Your task to perform on an android device: Open display settings Image 0: 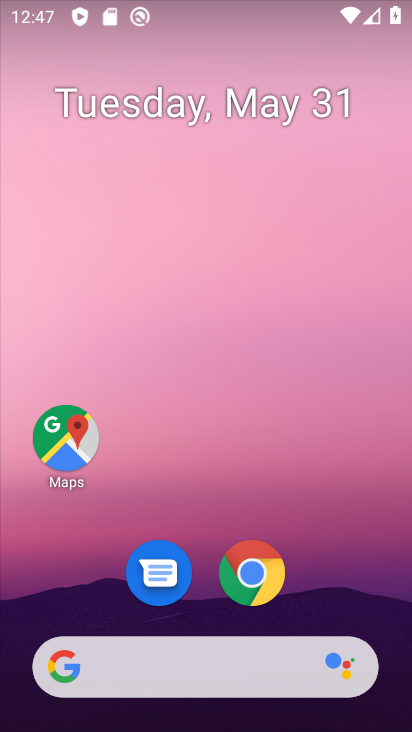
Step 0: drag from (336, 593) to (361, 313)
Your task to perform on an android device: Open display settings Image 1: 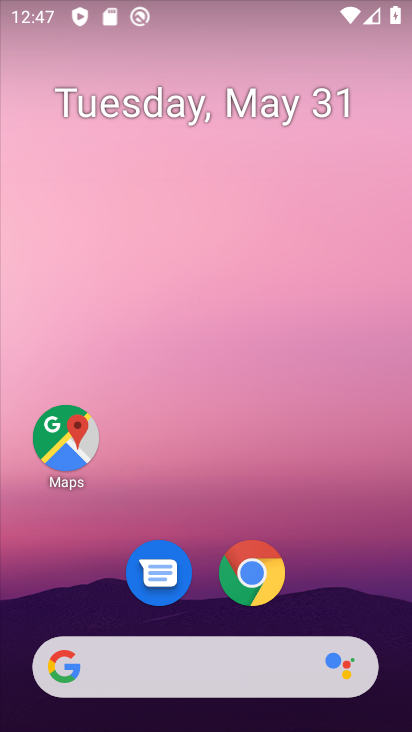
Step 1: drag from (377, 471) to (384, 109)
Your task to perform on an android device: Open display settings Image 2: 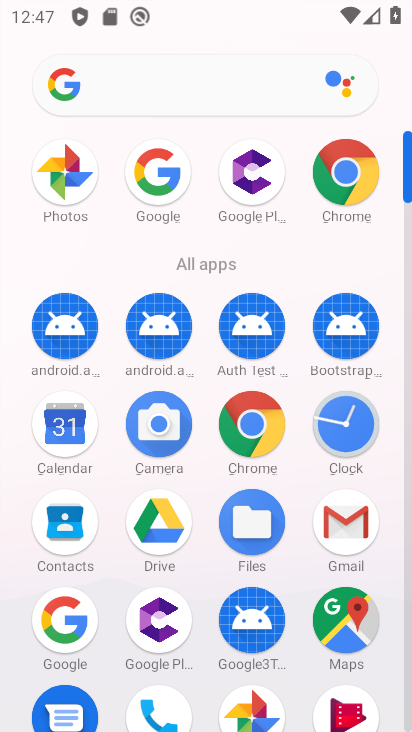
Step 2: drag from (198, 548) to (193, 304)
Your task to perform on an android device: Open display settings Image 3: 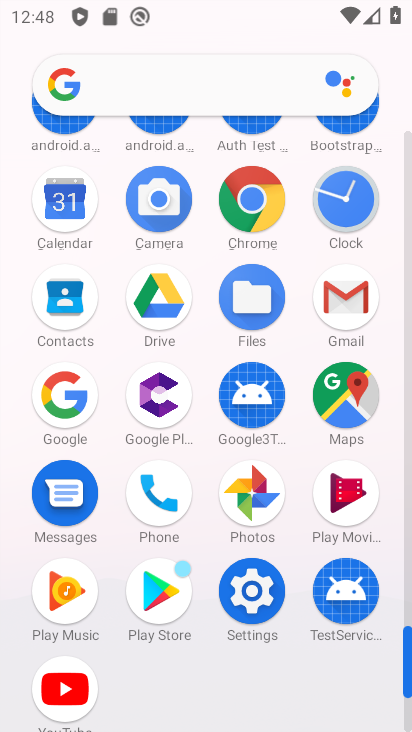
Step 3: click (244, 594)
Your task to perform on an android device: Open display settings Image 4: 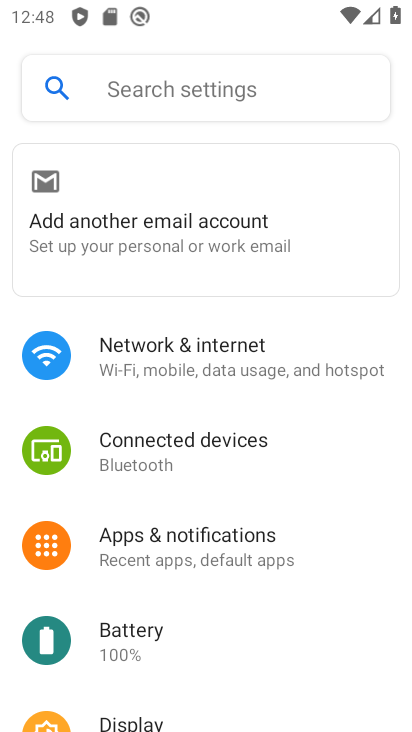
Step 4: drag from (297, 604) to (318, 470)
Your task to perform on an android device: Open display settings Image 5: 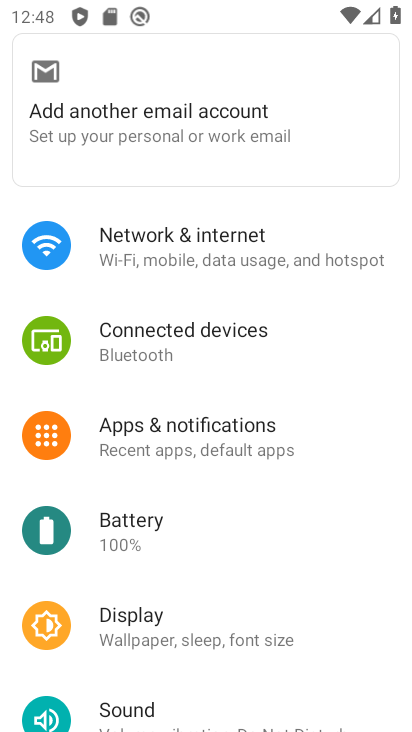
Step 5: drag from (335, 587) to (333, 460)
Your task to perform on an android device: Open display settings Image 6: 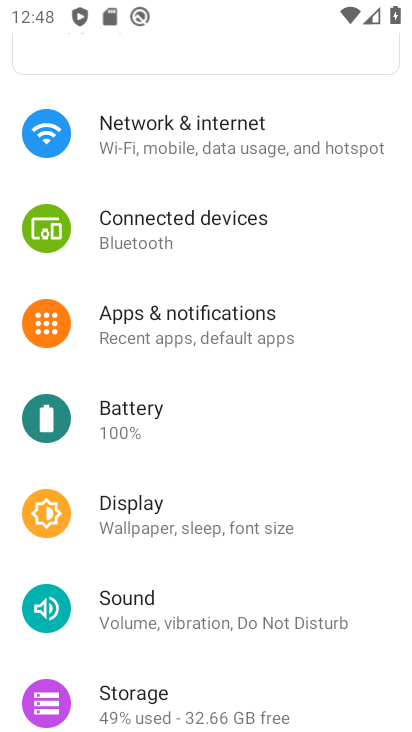
Step 6: drag from (319, 651) to (328, 448)
Your task to perform on an android device: Open display settings Image 7: 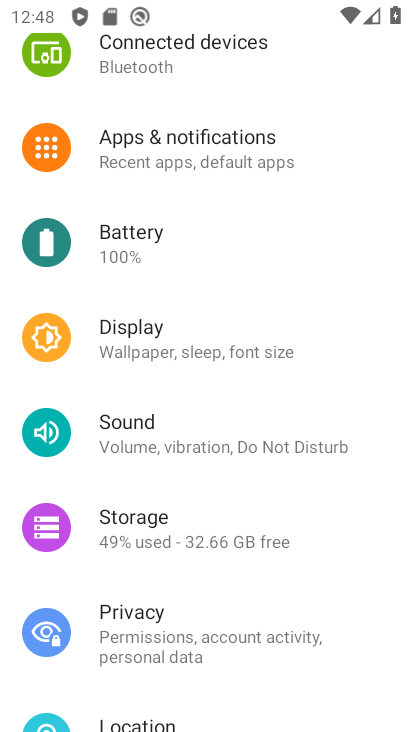
Step 7: drag from (349, 589) to (348, 453)
Your task to perform on an android device: Open display settings Image 8: 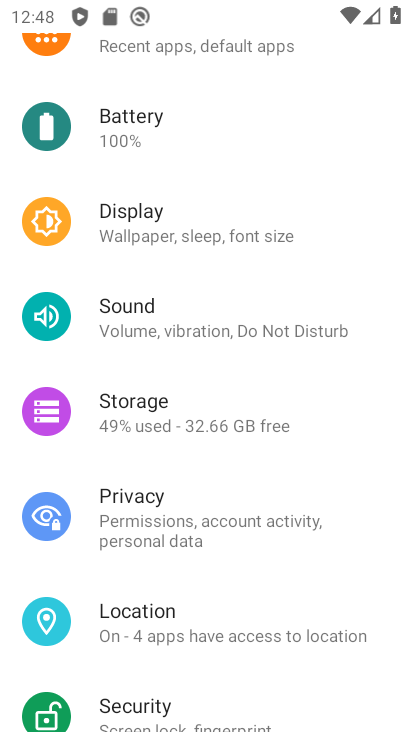
Step 8: drag from (356, 584) to (357, 417)
Your task to perform on an android device: Open display settings Image 9: 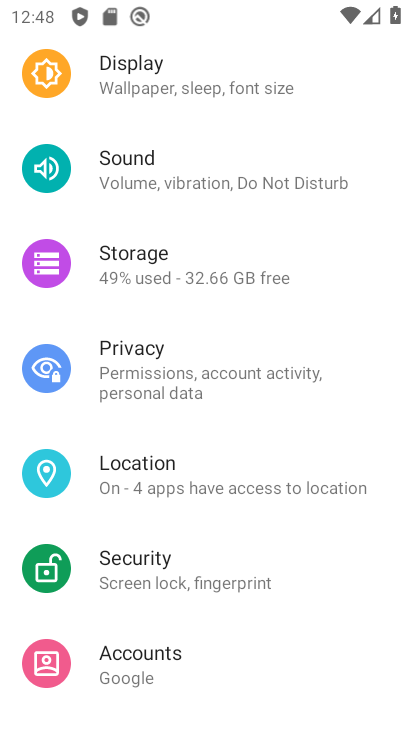
Step 9: drag from (364, 582) to (360, 436)
Your task to perform on an android device: Open display settings Image 10: 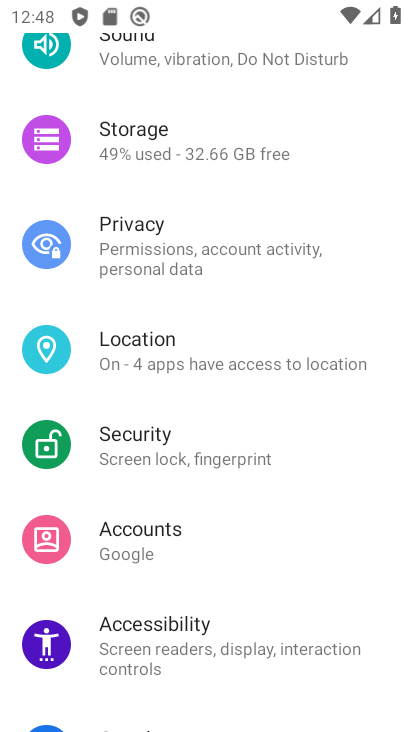
Step 10: drag from (342, 300) to (333, 412)
Your task to perform on an android device: Open display settings Image 11: 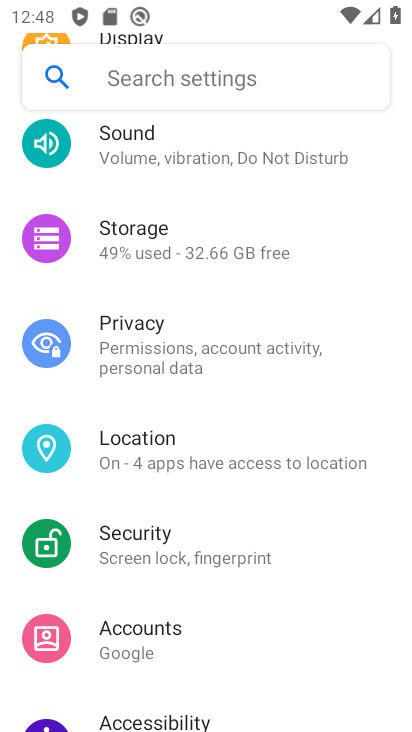
Step 11: drag from (343, 310) to (352, 451)
Your task to perform on an android device: Open display settings Image 12: 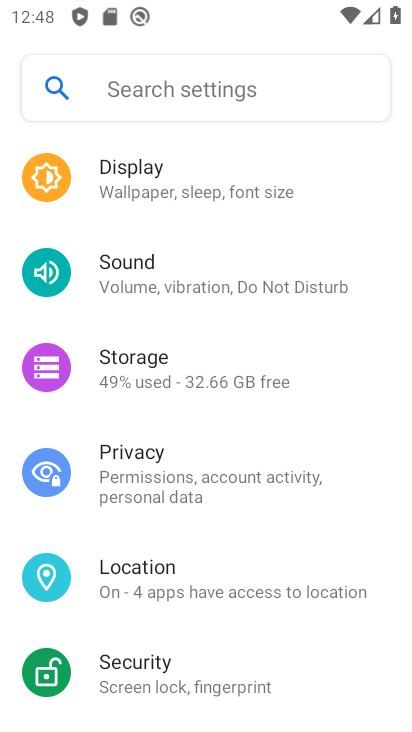
Step 12: drag from (360, 246) to (357, 364)
Your task to perform on an android device: Open display settings Image 13: 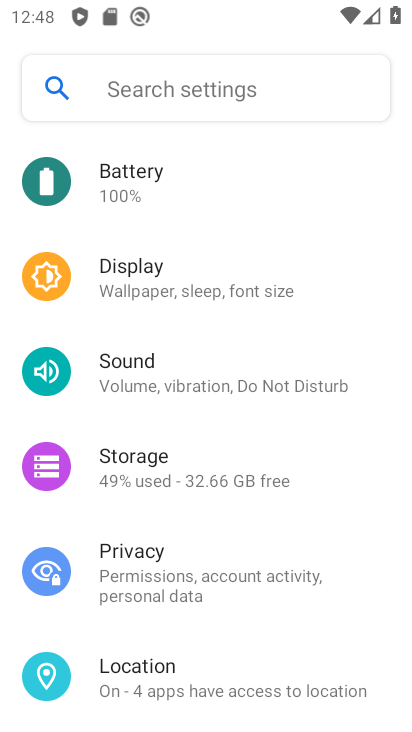
Step 13: click (238, 299)
Your task to perform on an android device: Open display settings Image 14: 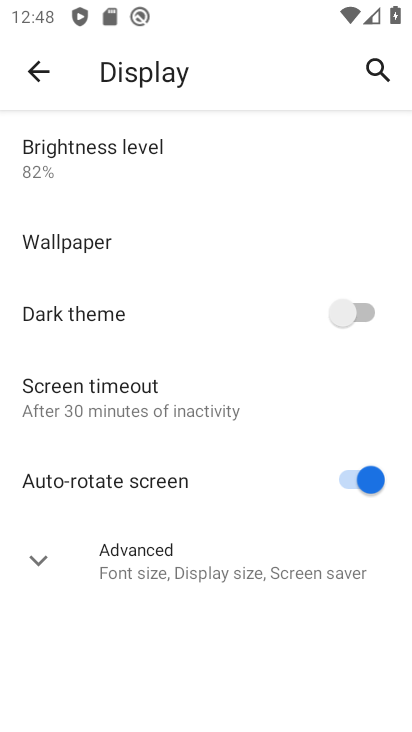
Step 14: task complete